Your task to perform on an android device: set the stopwatch Image 0: 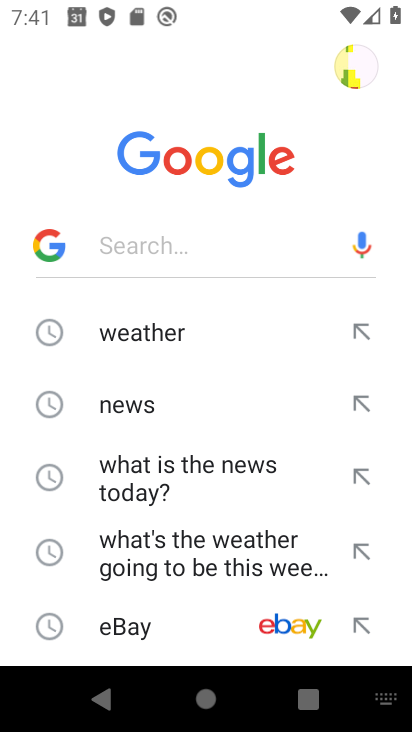
Step 0: press back button
Your task to perform on an android device: set the stopwatch Image 1: 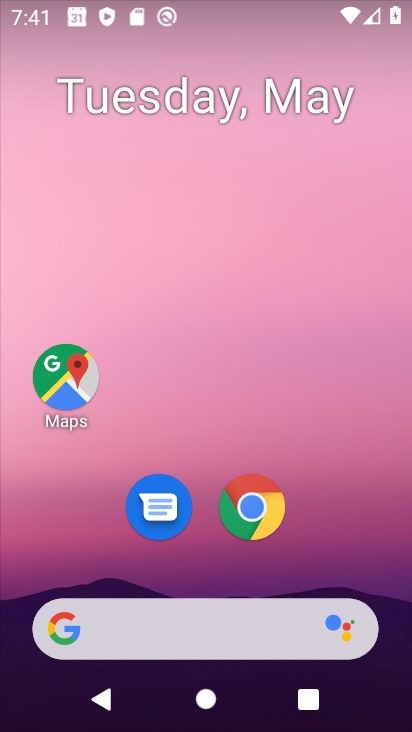
Step 1: drag from (346, 562) to (290, 92)
Your task to perform on an android device: set the stopwatch Image 2: 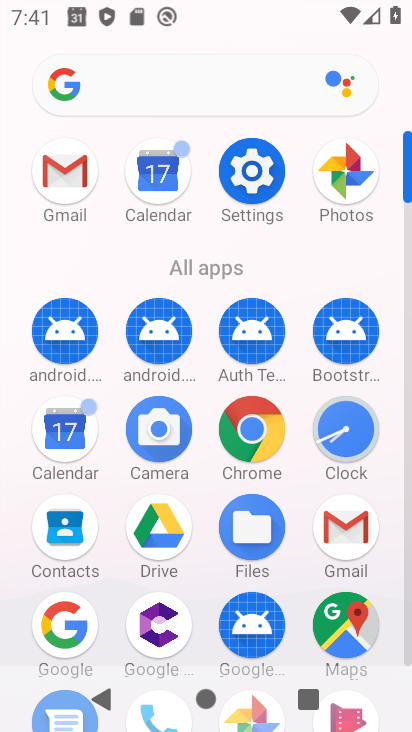
Step 2: click (352, 429)
Your task to perform on an android device: set the stopwatch Image 3: 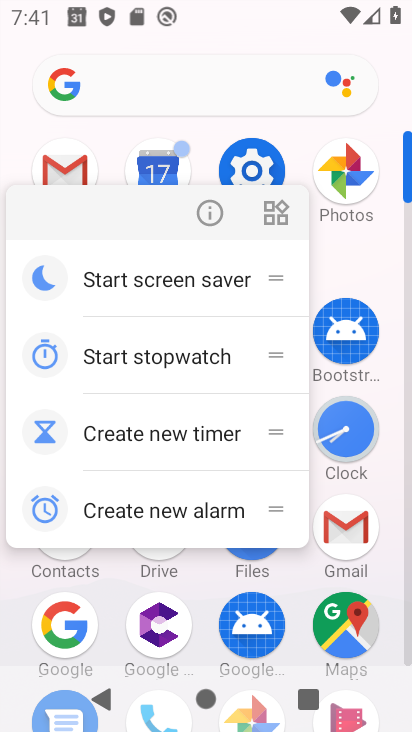
Step 3: click (333, 435)
Your task to perform on an android device: set the stopwatch Image 4: 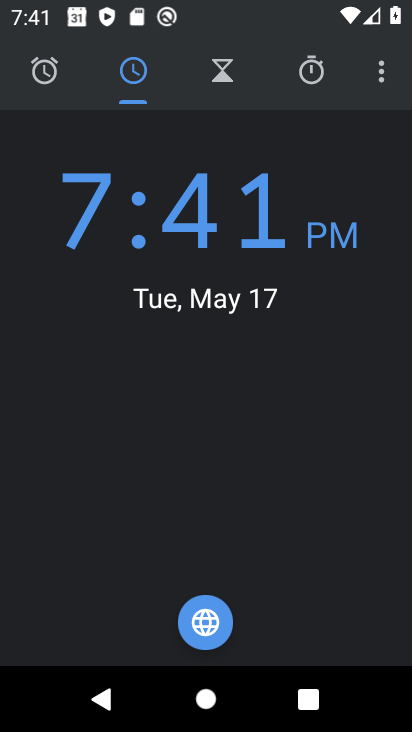
Step 4: click (297, 84)
Your task to perform on an android device: set the stopwatch Image 5: 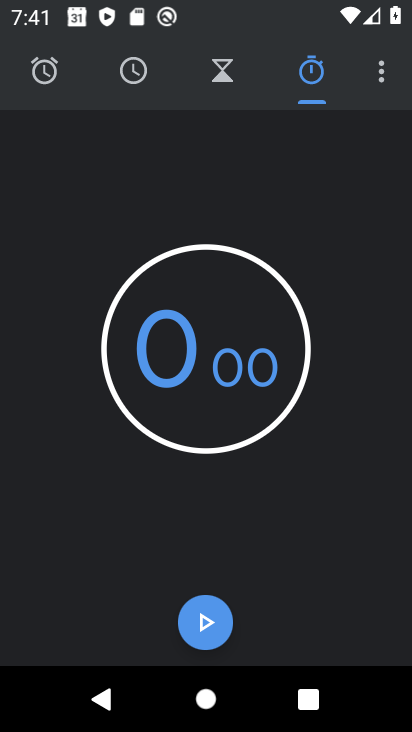
Step 5: click (212, 612)
Your task to perform on an android device: set the stopwatch Image 6: 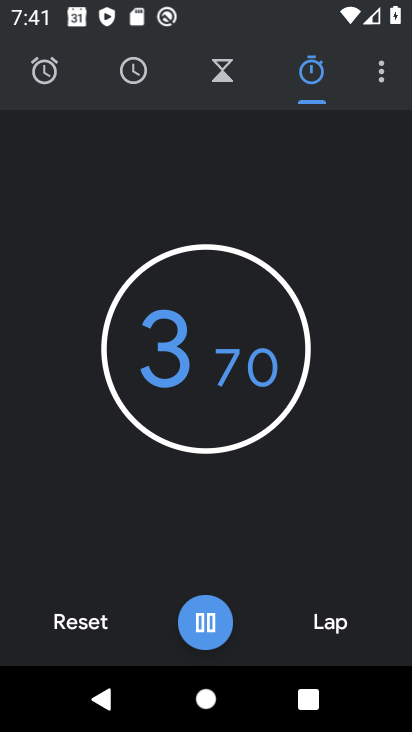
Step 6: task complete